Your task to perform on an android device: Open the phone app and click the voicemail tab. Image 0: 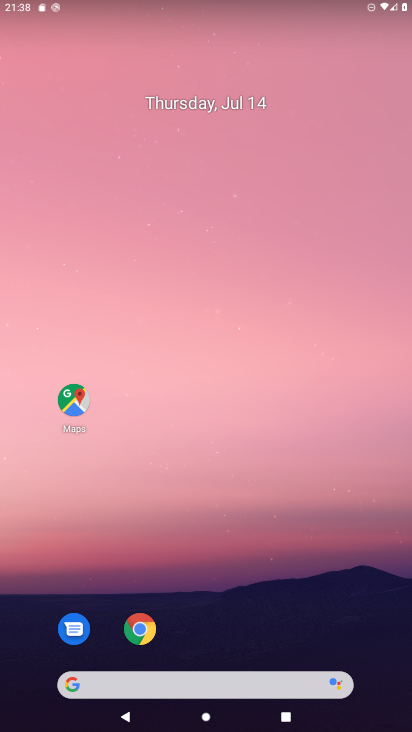
Step 0: drag from (293, 621) to (302, 126)
Your task to perform on an android device: Open the phone app and click the voicemail tab. Image 1: 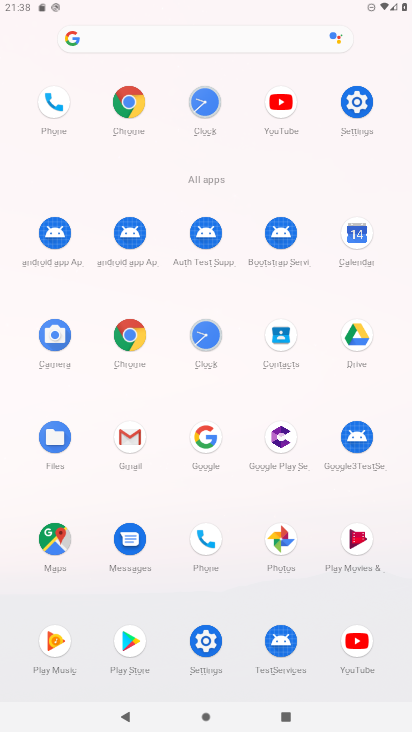
Step 1: click (197, 528)
Your task to perform on an android device: Open the phone app and click the voicemail tab. Image 2: 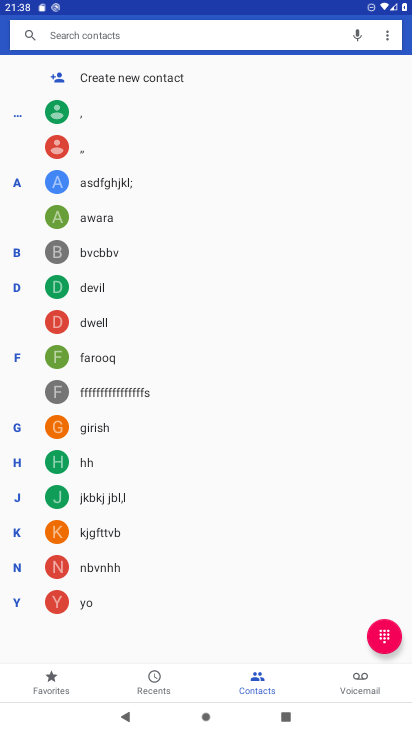
Step 2: click (384, 670)
Your task to perform on an android device: Open the phone app and click the voicemail tab. Image 3: 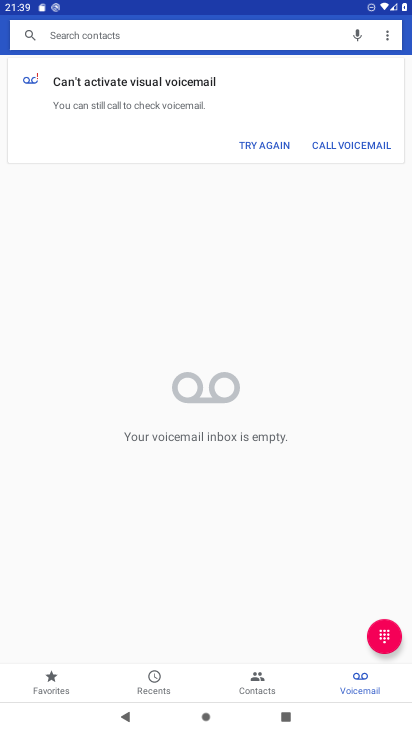
Step 3: task complete